Your task to perform on an android device: Open the calendar app, open the side menu, and click the "Day" option Image 0: 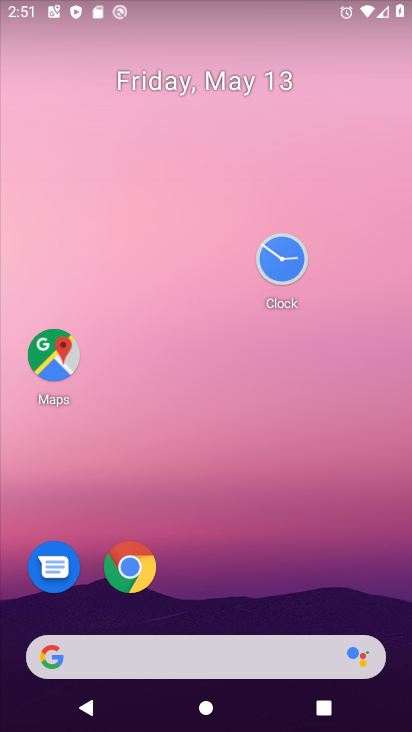
Step 0: drag from (249, 587) to (237, 309)
Your task to perform on an android device: Open the calendar app, open the side menu, and click the "Day" option Image 1: 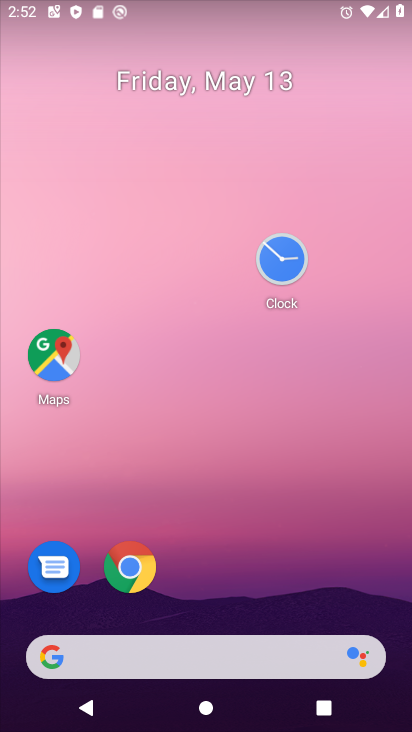
Step 1: drag from (267, 604) to (244, 125)
Your task to perform on an android device: Open the calendar app, open the side menu, and click the "Day" option Image 2: 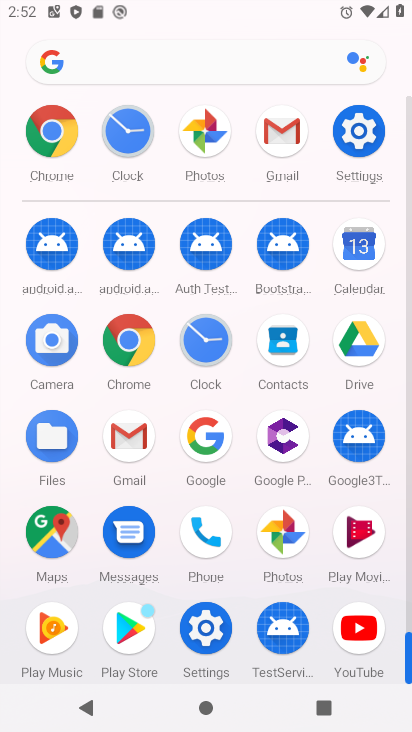
Step 2: click (336, 254)
Your task to perform on an android device: Open the calendar app, open the side menu, and click the "Day" option Image 3: 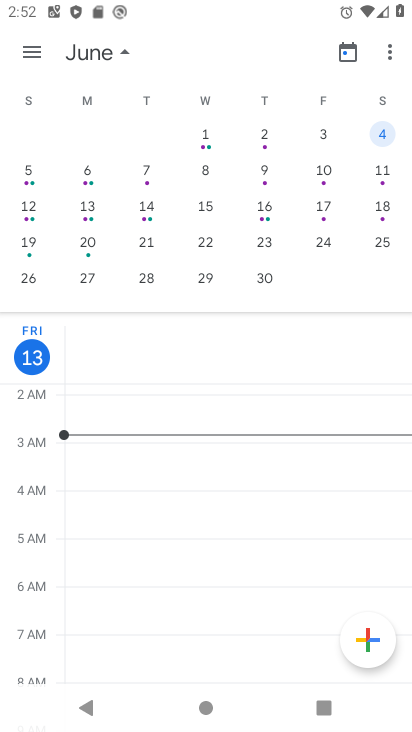
Step 3: click (19, 46)
Your task to perform on an android device: Open the calendar app, open the side menu, and click the "Day" option Image 4: 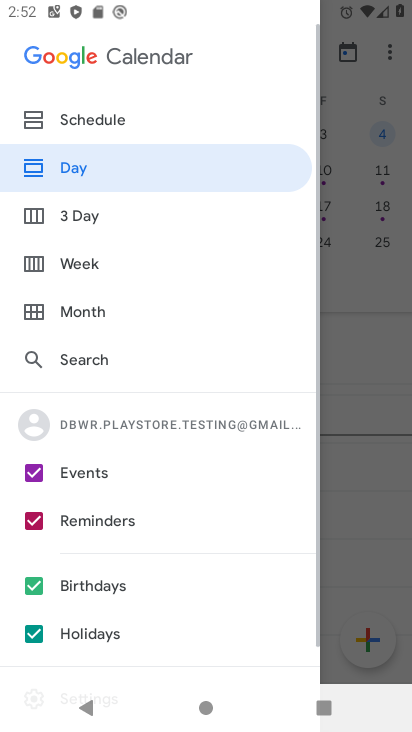
Step 4: click (36, 173)
Your task to perform on an android device: Open the calendar app, open the side menu, and click the "Day" option Image 5: 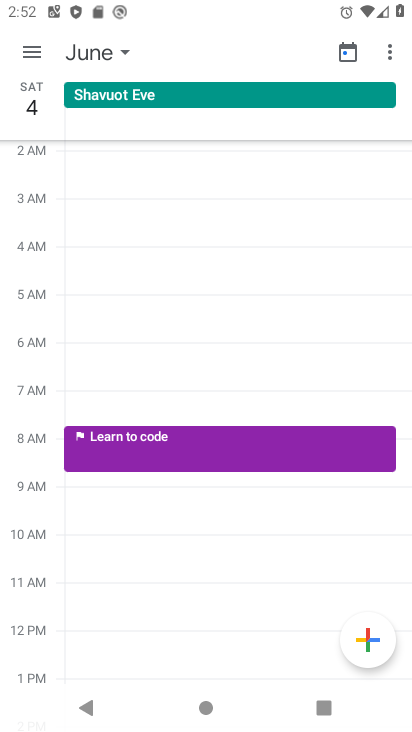
Step 5: task complete